Your task to perform on an android device: turn on javascript in the chrome app Image 0: 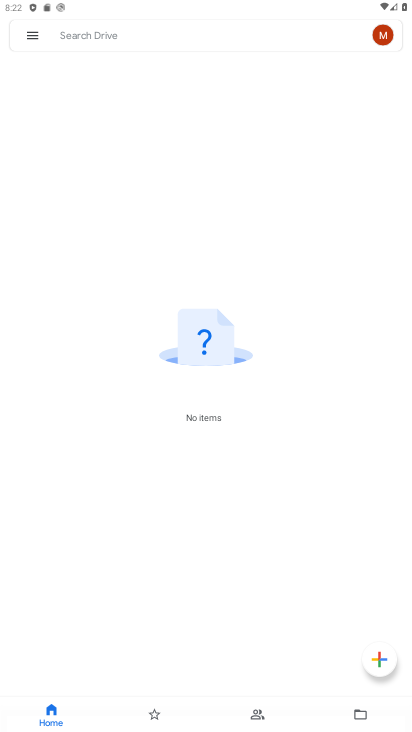
Step 0: press home button
Your task to perform on an android device: turn on javascript in the chrome app Image 1: 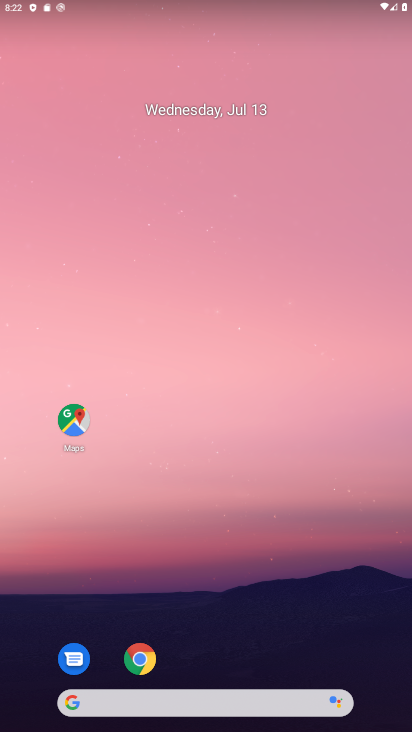
Step 1: click (137, 660)
Your task to perform on an android device: turn on javascript in the chrome app Image 2: 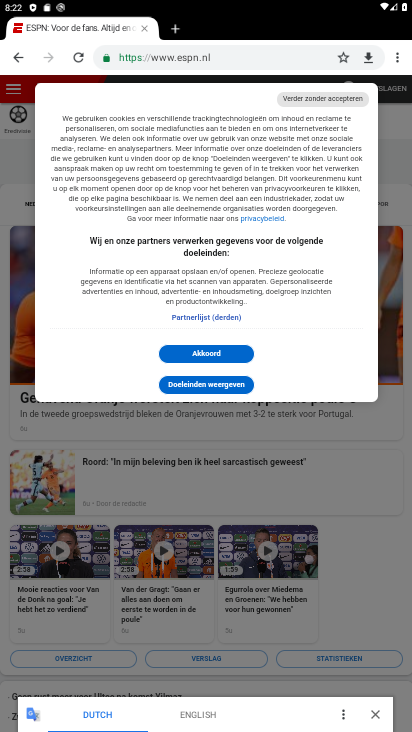
Step 2: click (179, 36)
Your task to perform on an android device: turn on javascript in the chrome app Image 3: 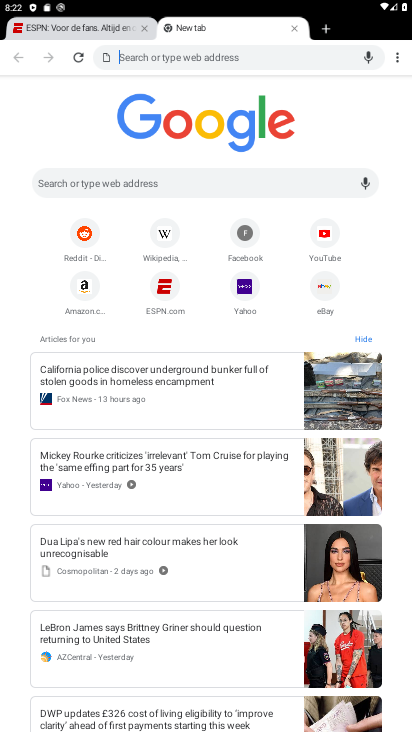
Step 3: click (145, 32)
Your task to perform on an android device: turn on javascript in the chrome app Image 4: 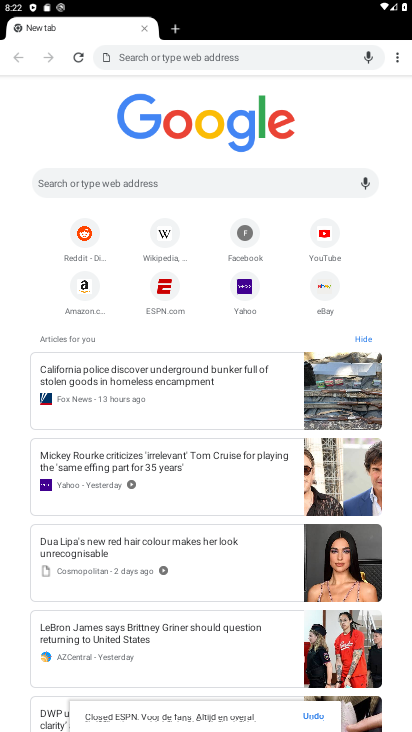
Step 4: click (396, 54)
Your task to perform on an android device: turn on javascript in the chrome app Image 5: 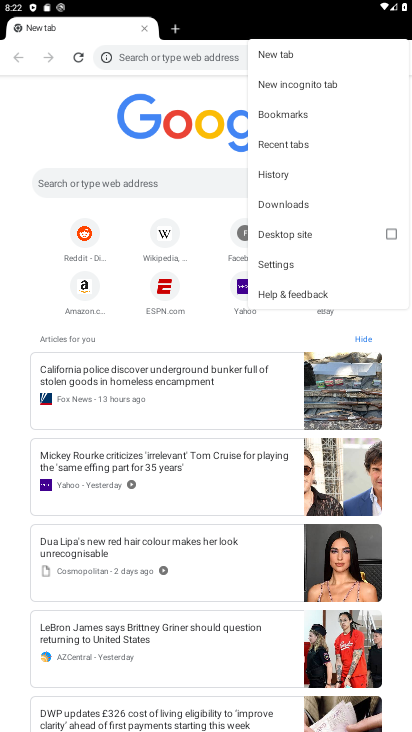
Step 5: click (264, 268)
Your task to perform on an android device: turn on javascript in the chrome app Image 6: 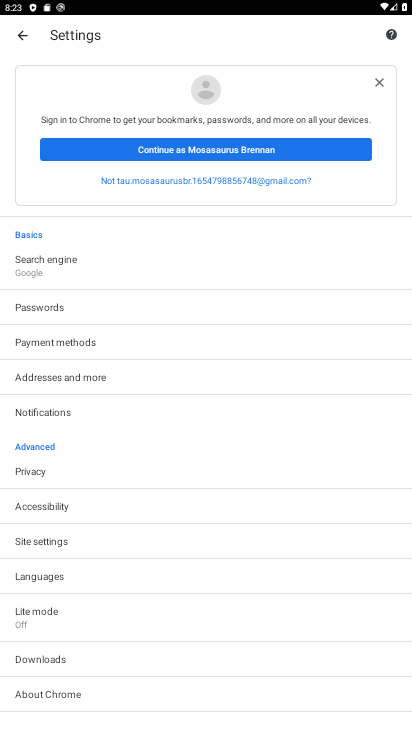
Step 6: click (92, 542)
Your task to perform on an android device: turn on javascript in the chrome app Image 7: 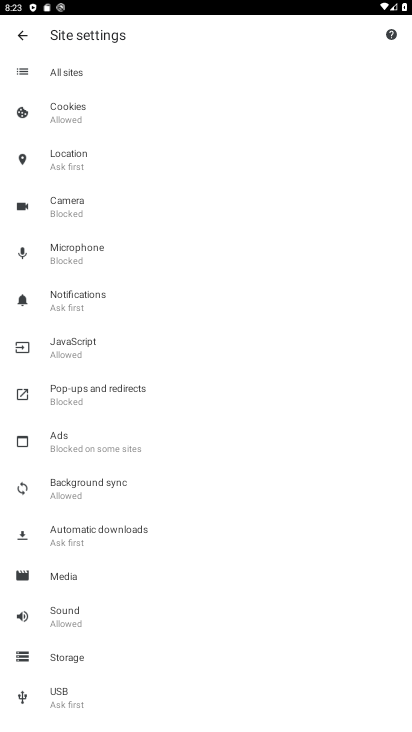
Step 7: click (63, 348)
Your task to perform on an android device: turn on javascript in the chrome app Image 8: 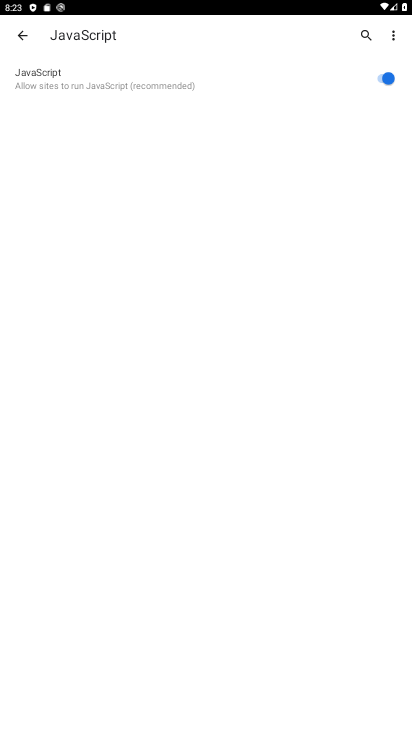
Step 8: task complete